Your task to perform on an android device: see creations saved in the google photos Image 0: 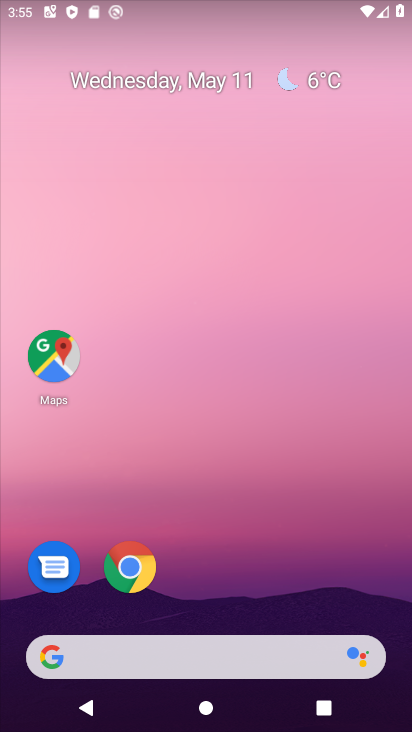
Step 0: drag from (234, 423) to (234, 216)
Your task to perform on an android device: see creations saved in the google photos Image 1: 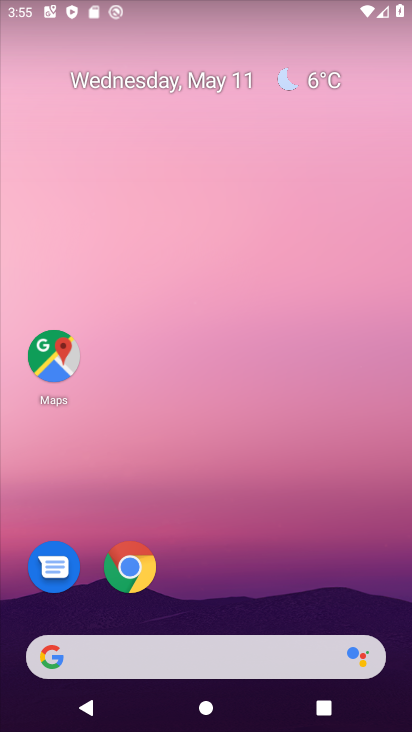
Step 1: drag from (260, 430) to (254, 225)
Your task to perform on an android device: see creations saved in the google photos Image 2: 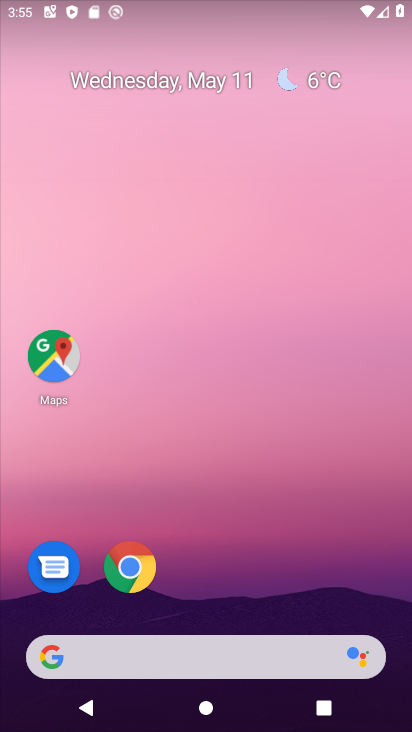
Step 2: drag from (208, 634) to (227, 177)
Your task to perform on an android device: see creations saved in the google photos Image 3: 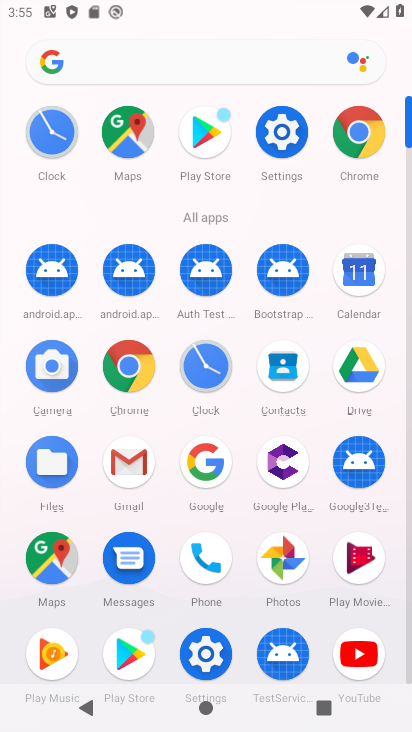
Step 3: click (277, 557)
Your task to perform on an android device: see creations saved in the google photos Image 4: 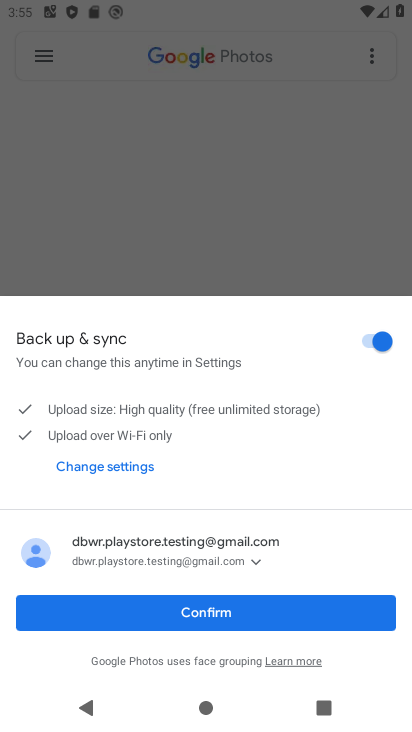
Step 4: click (229, 604)
Your task to perform on an android device: see creations saved in the google photos Image 5: 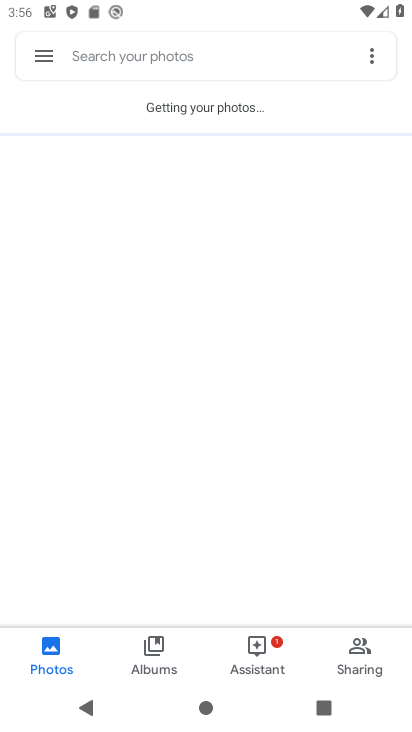
Step 5: click (139, 646)
Your task to perform on an android device: see creations saved in the google photos Image 6: 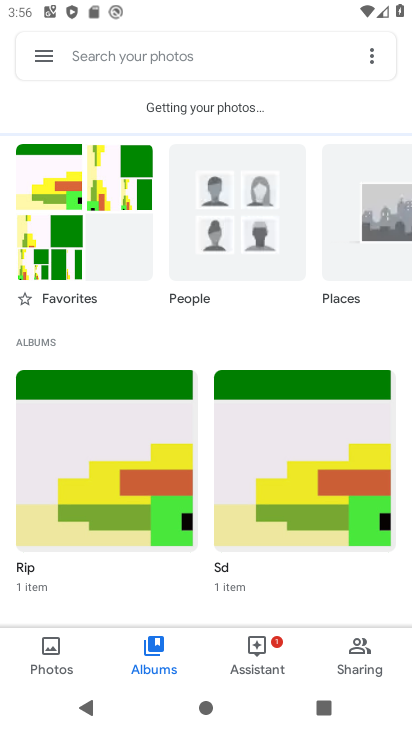
Step 6: task complete